Your task to perform on an android device: turn vacation reply on in the gmail app Image 0: 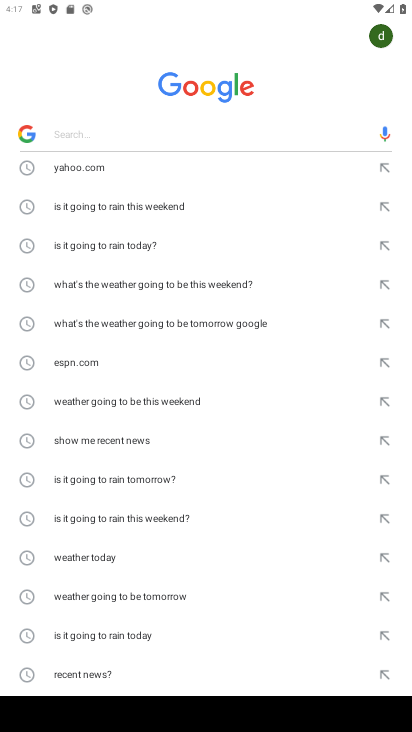
Step 0: press home button
Your task to perform on an android device: turn vacation reply on in the gmail app Image 1: 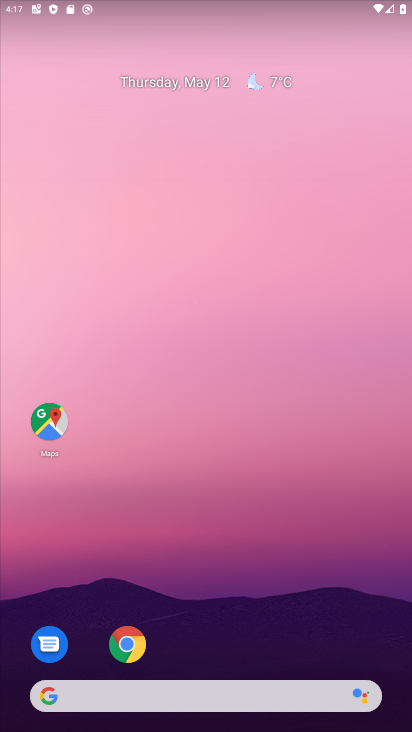
Step 1: drag from (258, 526) to (278, 118)
Your task to perform on an android device: turn vacation reply on in the gmail app Image 2: 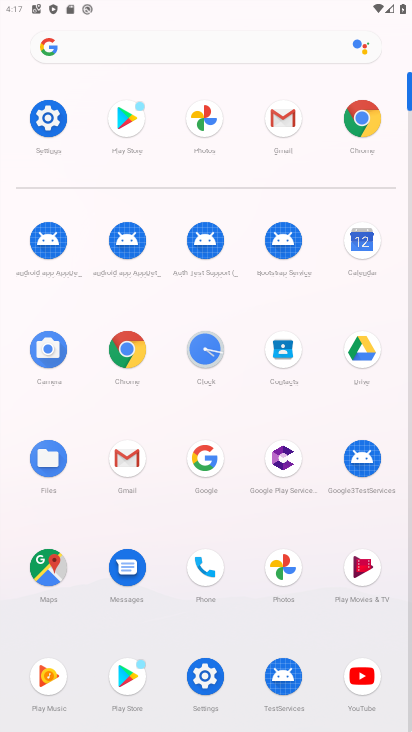
Step 2: click (289, 115)
Your task to perform on an android device: turn vacation reply on in the gmail app Image 3: 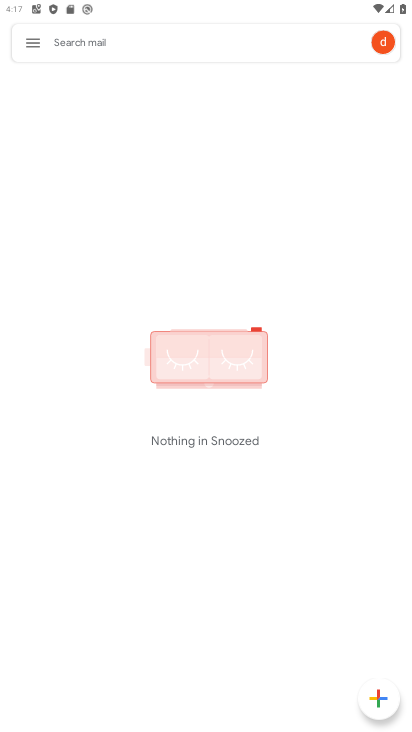
Step 3: click (35, 42)
Your task to perform on an android device: turn vacation reply on in the gmail app Image 4: 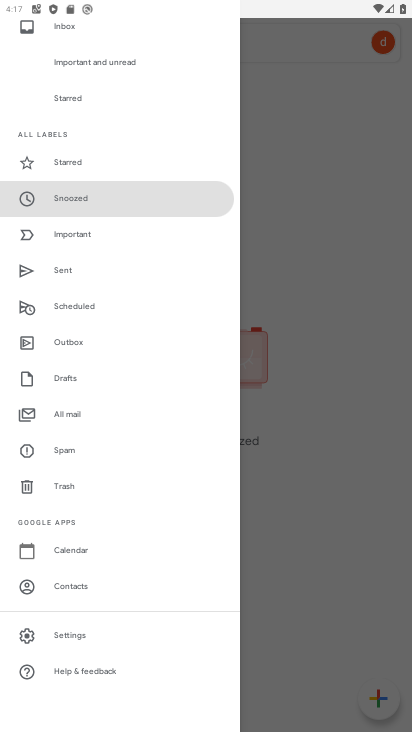
Step 4: click (79, 627)
Your task to perform on an android device: turn vacation reply on in the gmail app Image 5: 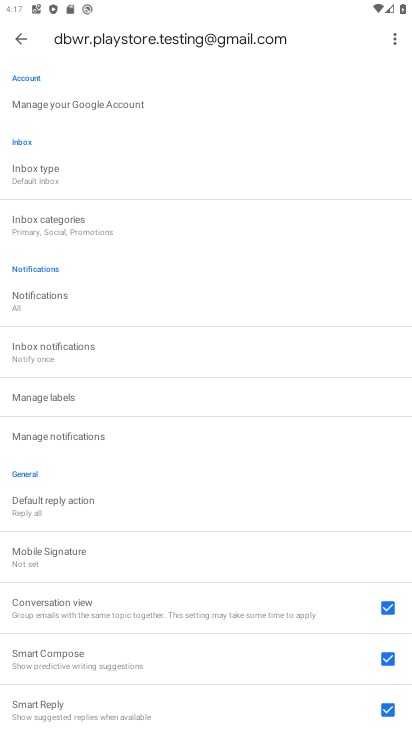
Step 5: drag from (138, 630) to (162, 170)
Your task to perform on an android device: turn vacation reply on in the gmail app Image 6: 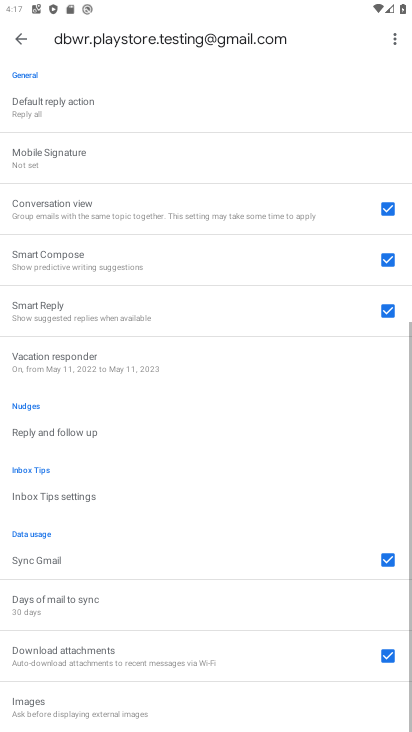
Step 6: click (91, 354)
Your task to perform on an android device: turn vacation reply on in the gmail app Image 7: 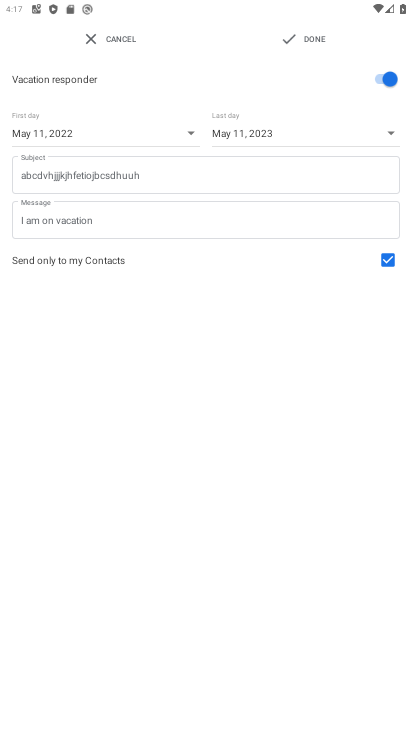
Step 7: task complete